Your task to perform on an android device: Open my contact list Image 0: 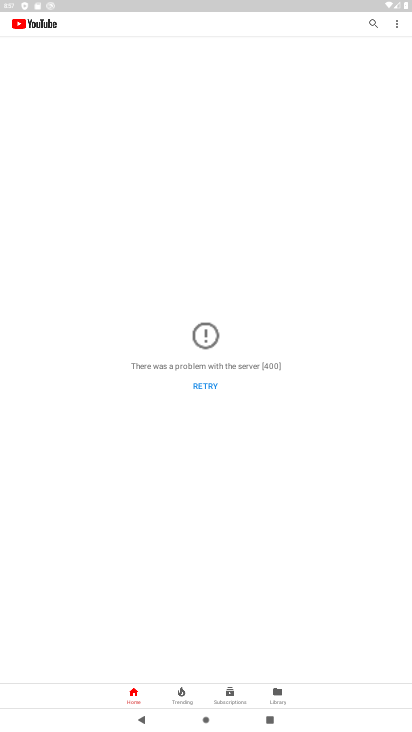
Step 0: press back button
Your task to perform on an android device: Open my contact list Image 1: 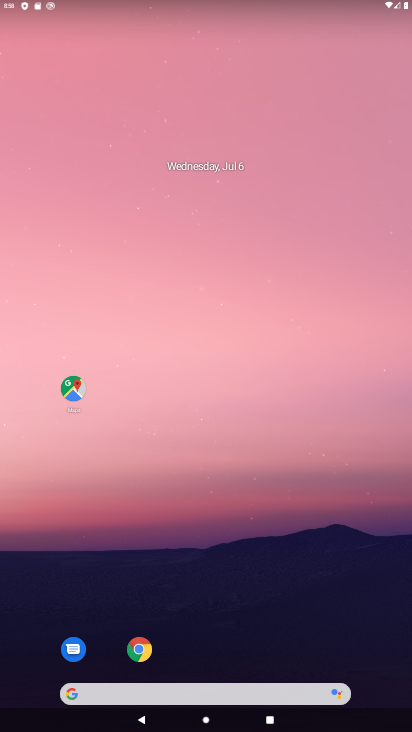
Step 1: drag from (247, 671) to (306, 197)
Your task to perform on an android device: Open my contact list Image 2: 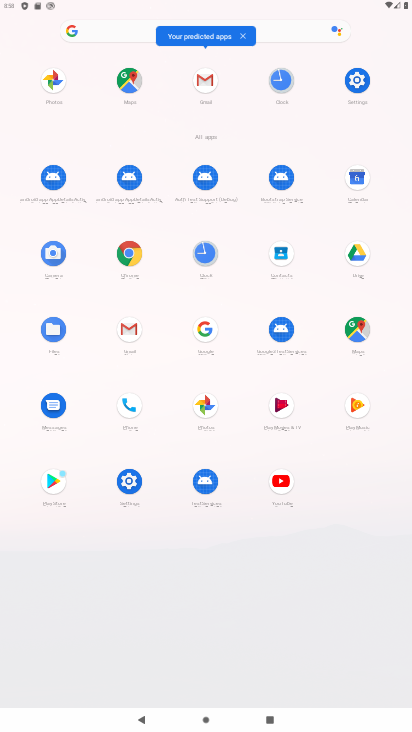
Step 2: click (117, 421)
Your task to perform on an android device: Open my contact list Image 3: 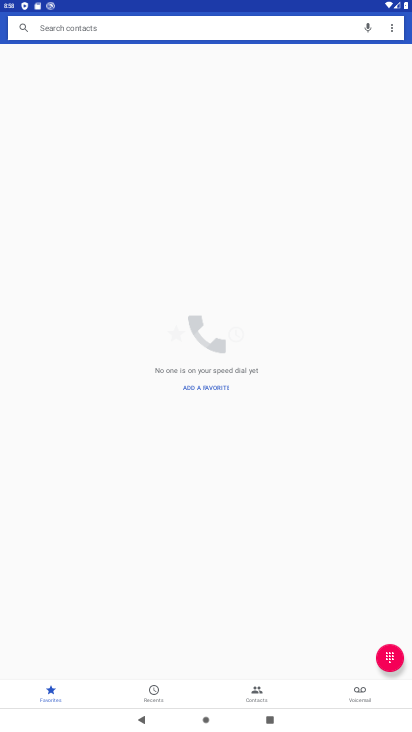
Step 3: click (261, 685)
Your task to perform on an android device: Open my contact list Image 4: 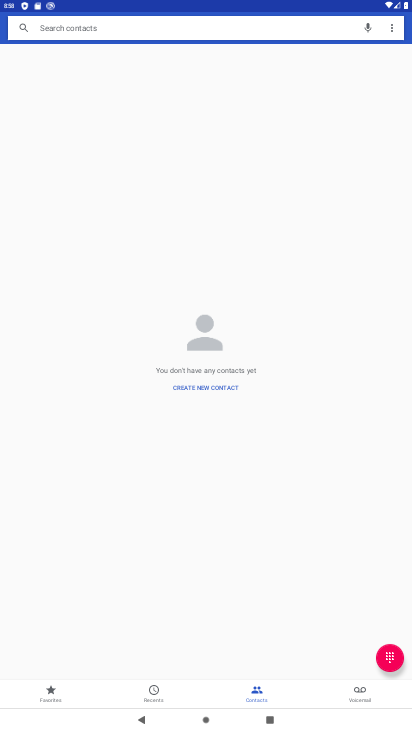
Step 4: click (261, 685)
Your task to perform on an android device: Open my contact list Image 5: 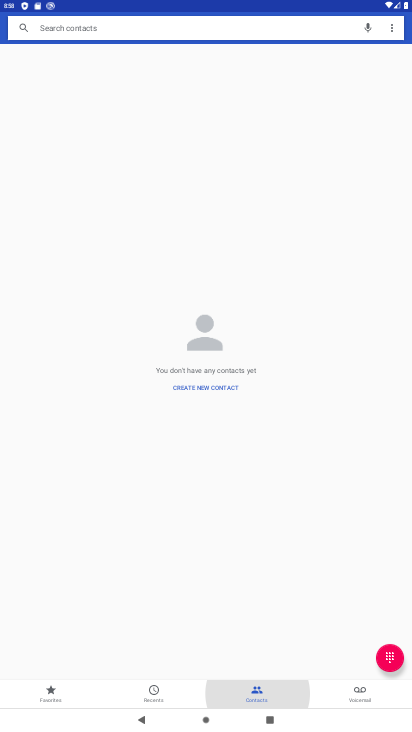
Step 5: click (261, 685)
Your task to perform on an android device: Open my contact list Image 6: 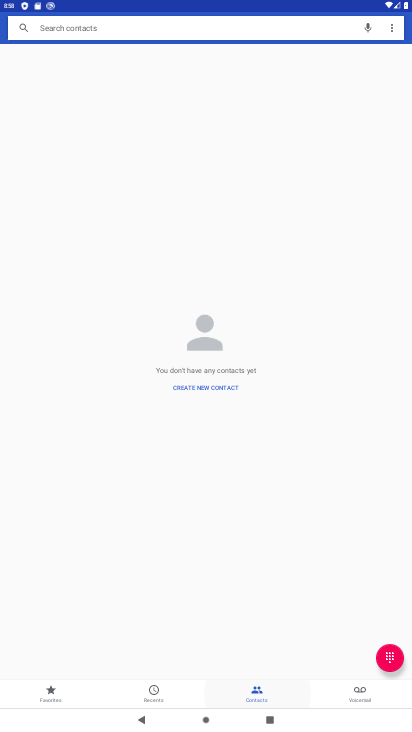
Step 6: click (261, 685)
Your task to perform on an android device: Open my contact list Image 7: 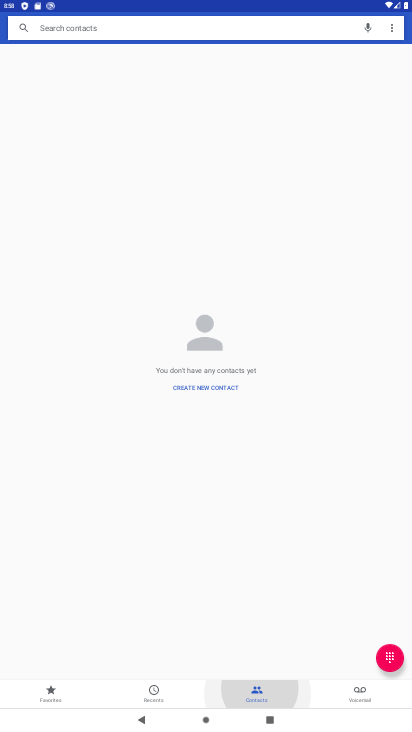
Step 7: click (261, 685)
Your task to perform on an android device: Open my contact list Image 8: 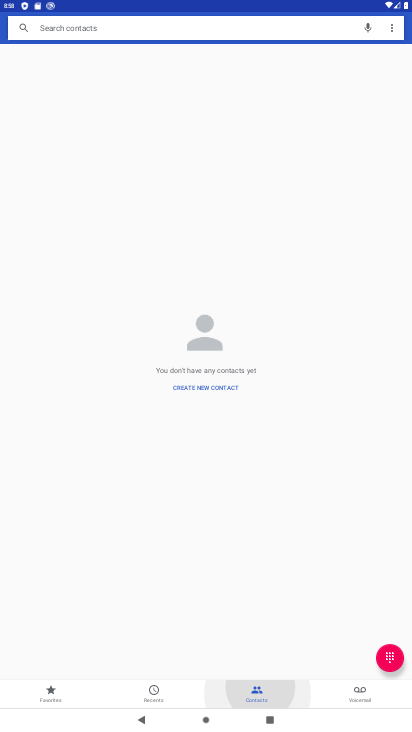
Step 8: click (261, 685)
Your task to perform on an android device: Open my contact list Image 9: 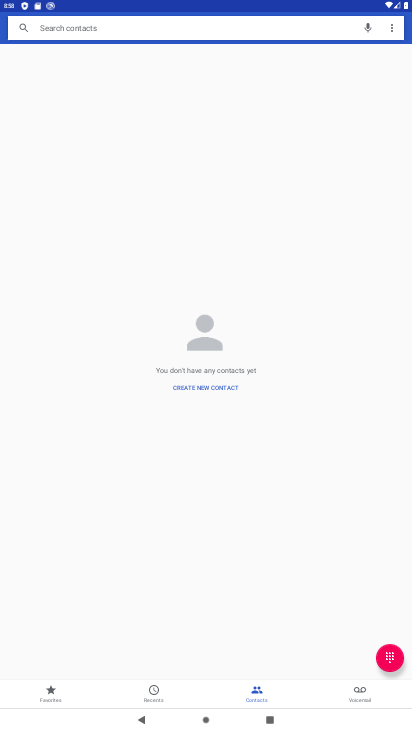
Step 9: task complete